Your task to perform on an android device: Open Wikipedia Image 0: 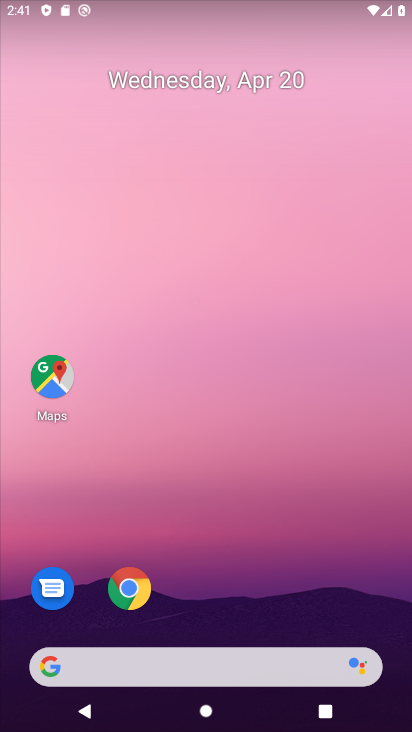
Step 0: drag from (350, 581) to (296, 0)
Your task to perform on an android device: Open Wikipedia Image 1: 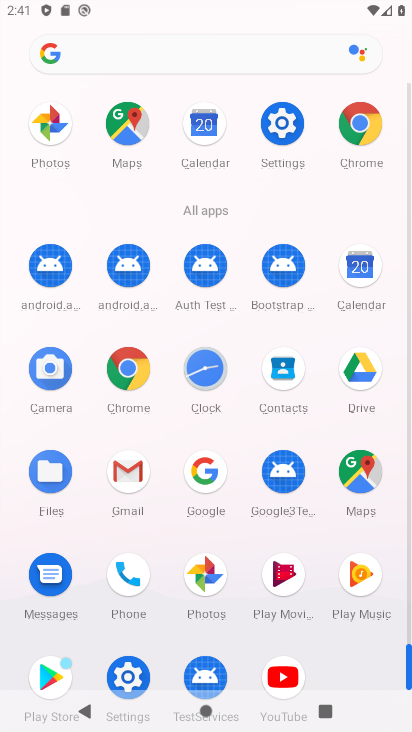
Step 1: click (125, 369)
Your task to perform on an android device: Open Wikipedia Image 2: 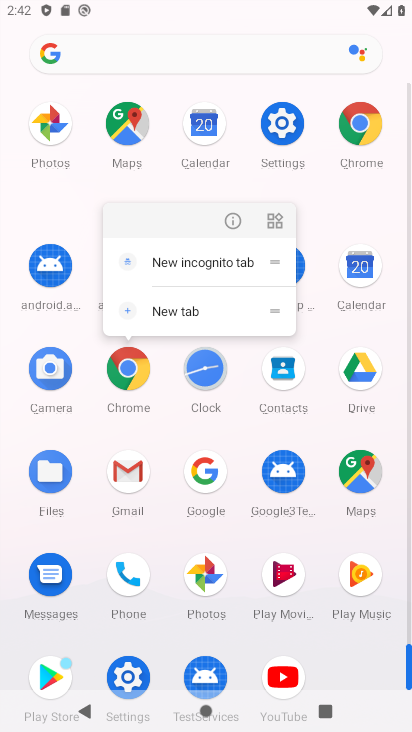
Step 2: click (128, 363)
Your task to perform on an android device: Open Wikipedia Image 3: 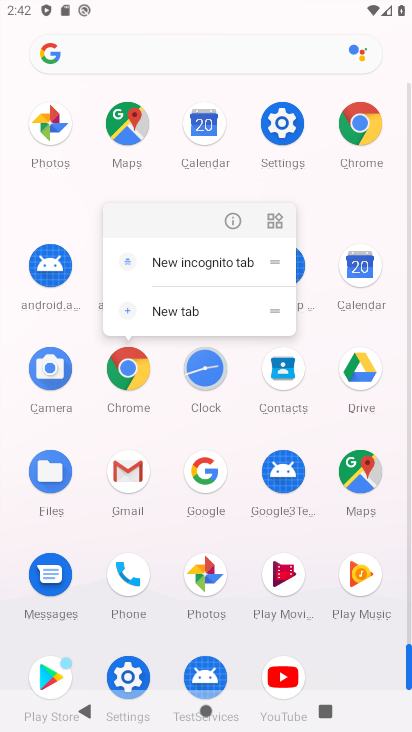
Step 3: click (128, 363)
Your task to perform on an android device: Open Wikipedia Image 4: 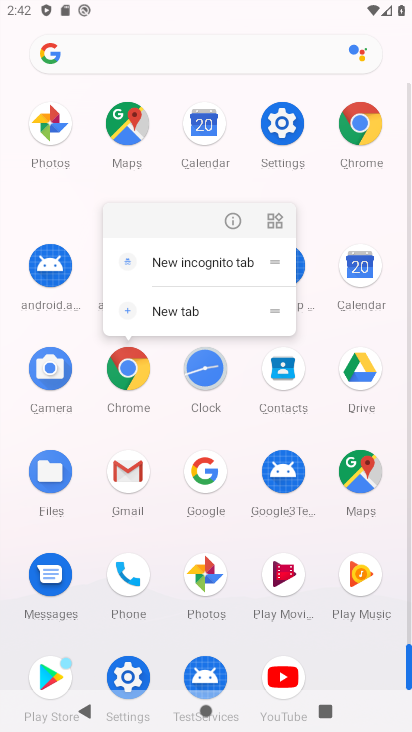
Step 4: click (130, 354)
Your task to perform on an android device: Open Wikipedia Image 5: 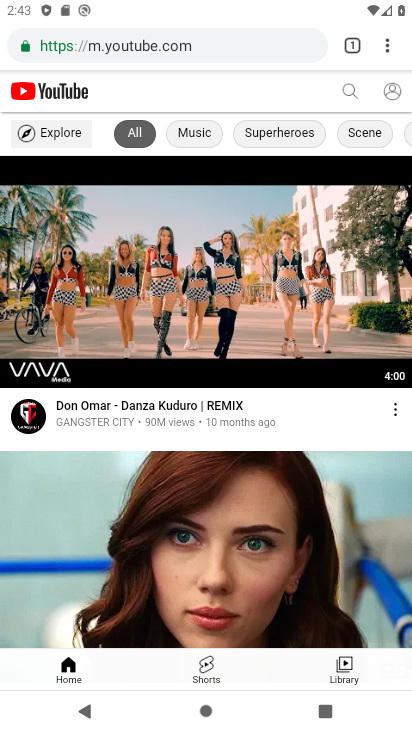
Step 5: click (178, 43)
Your task to perform on an android device: Open Wikipedia Image 6: 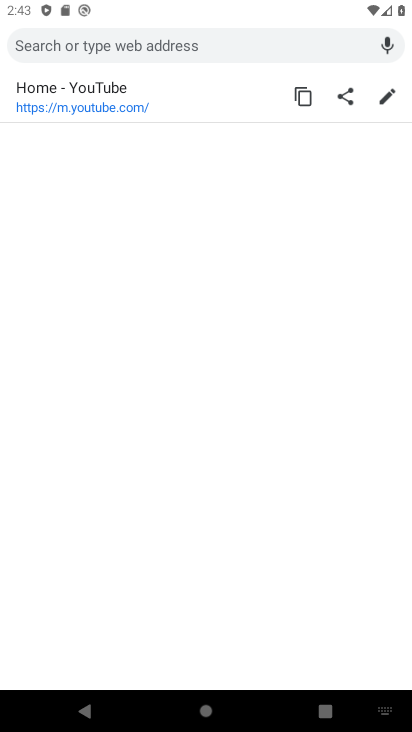
Step 6: type "wikipedia"
Your task to perform on an android device: Open Wikipedia Image 7: 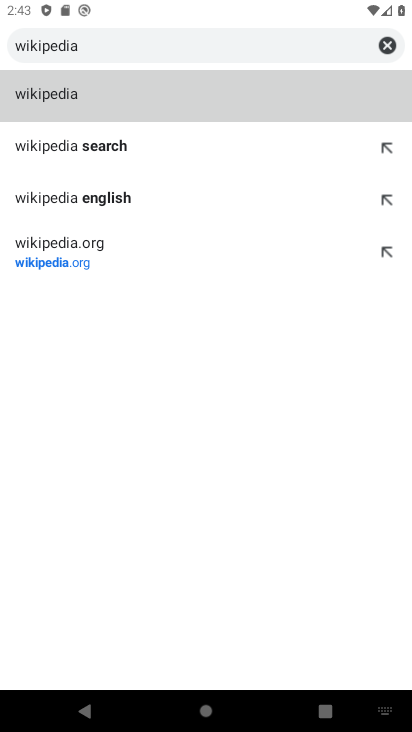
Step 7: click (244, 108)
Your task to perform on an android device: Open Wikipedia Image 8: 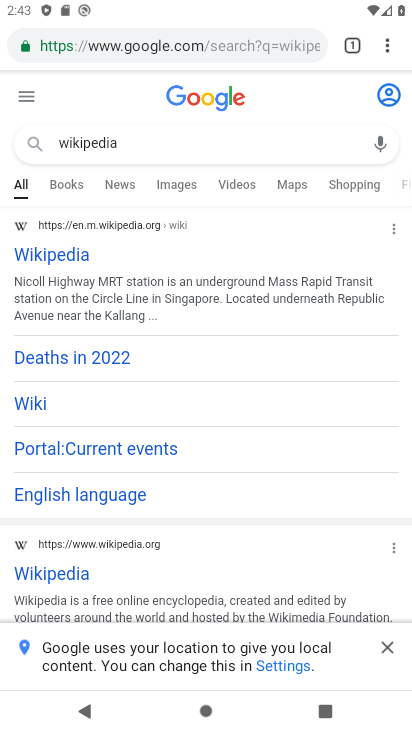
Step 8: task complete